Your task to perform on an android device: Go to sound settings Image 0: 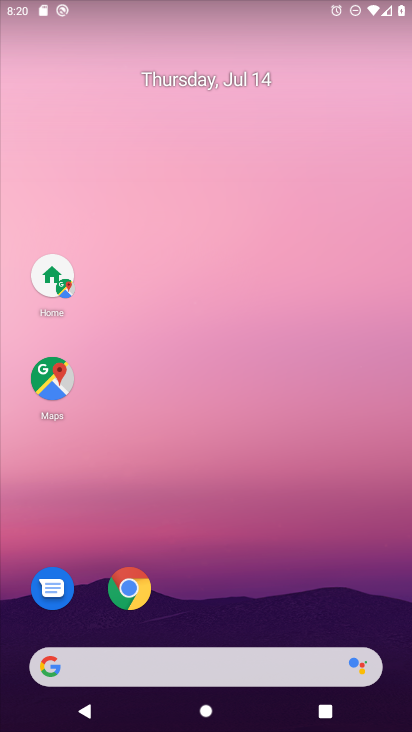
Step 0: drag from (41, 689) to (299, 57)
Your task to perform on an android device: Go to sound settings Image 1: 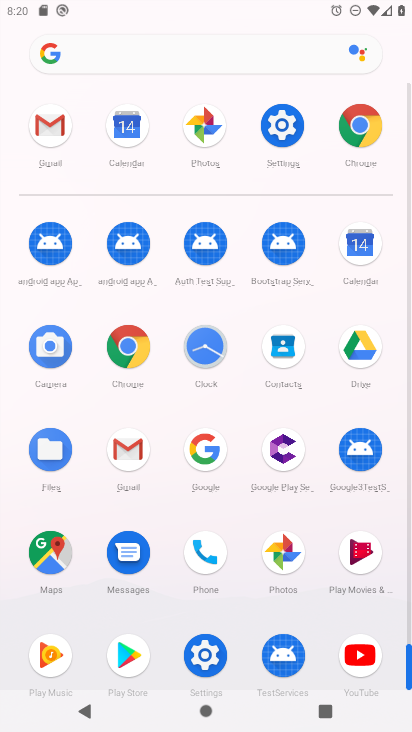
Step 1: click (200, 656)
Your task to perform on an android device: Go to sound settings Image 2: 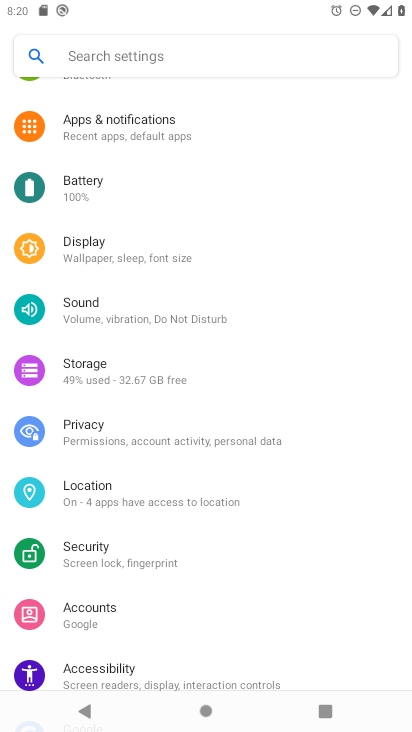
Step 2: click (92, 308)
Your task to perform on an android device: Go to sound settings Image 3: 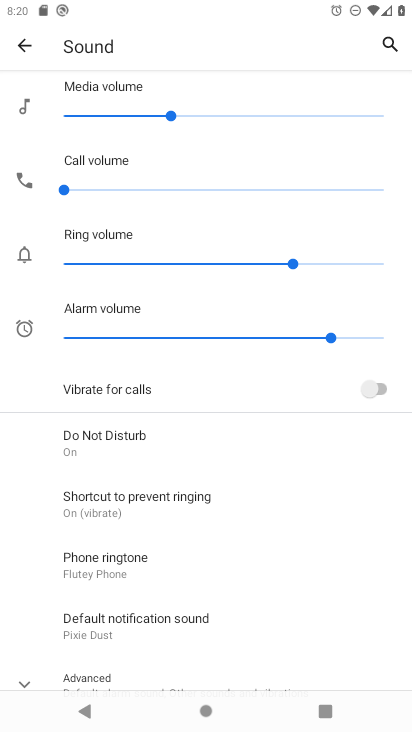
Step 3: task complete